Your task to perform on an android device: turn off priority inbox in the gmail app Image 0: 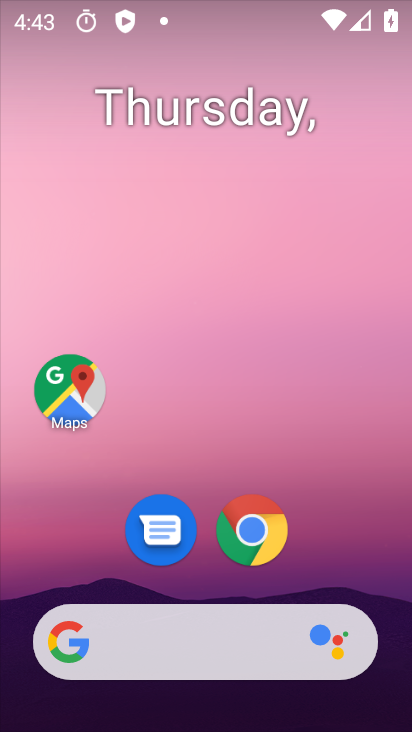
Step 0: drag from (217, 683) to (226, 2)
Your task to perform on an android device: turn off priority inbox in the gmail app Image 1: 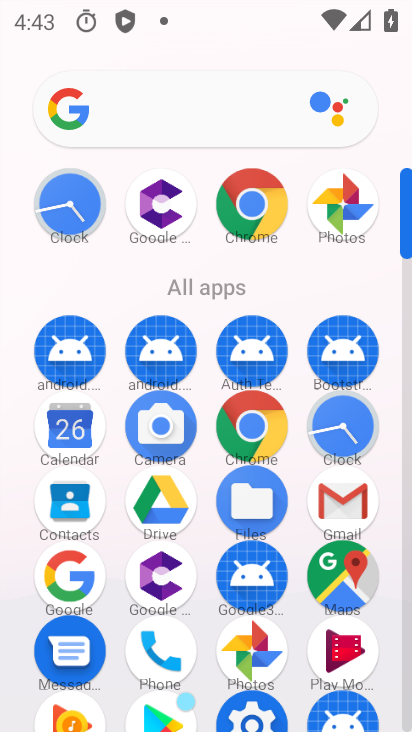
Step 1: click (357, 491)
Your task to perform on an android device: turn off priority inbox in the gmail app Image 2: 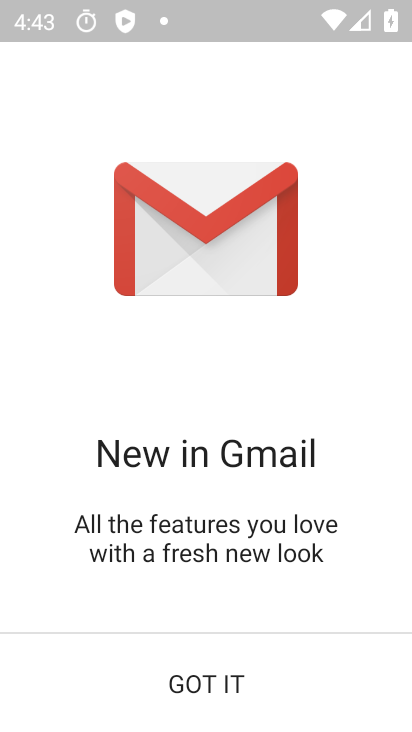
Step 2: click (260, 677)
Your task to perform on an android device: turn off priority inbox in the gmail app Image 3: 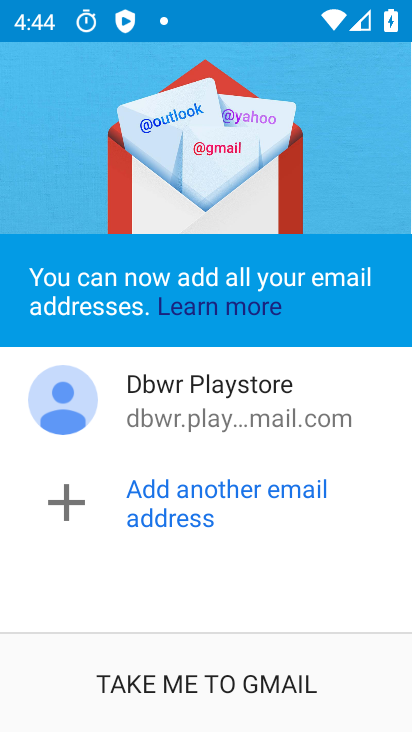
Step 3: click (218, 684)
Your task to perform on an android device: turn off priority inbox in the gmail app Image 4: 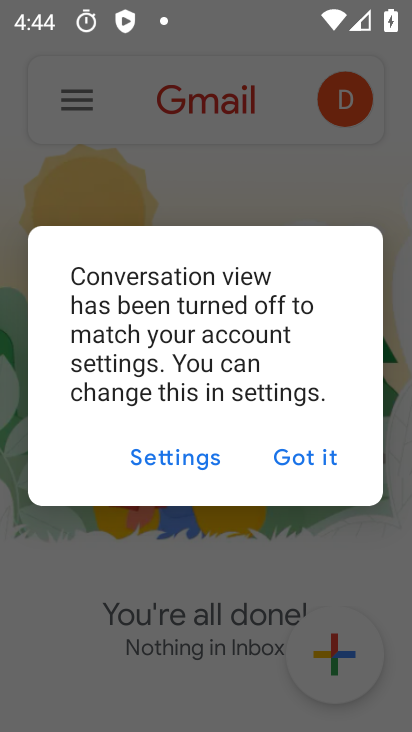
Step 4: click (315, 463)
Your task to perform on an android device: turn off priority inbox in the gmail app Image 5: 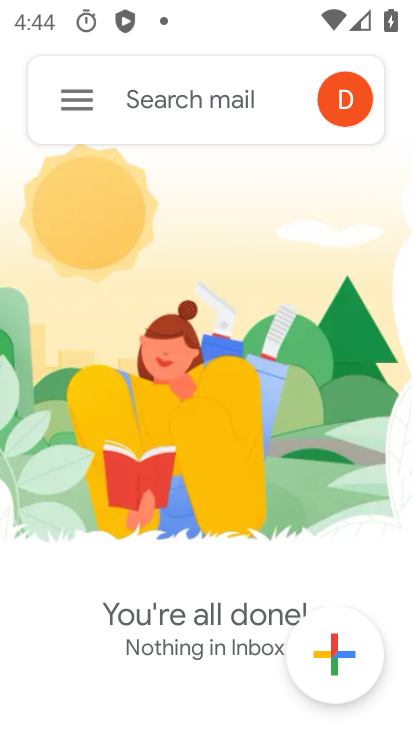
Step 5: click (67, 90)
Your task to perform on an android device: turn off priority inbox in the gmail app Image 6: 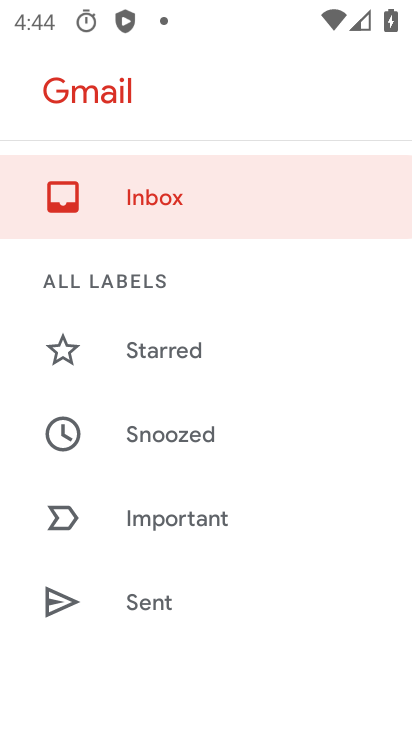
Step 6: drag from (221, 626) to (260, 153)
Your task to perform on an android device: turn off priority inbox in the gmail app Image 7: 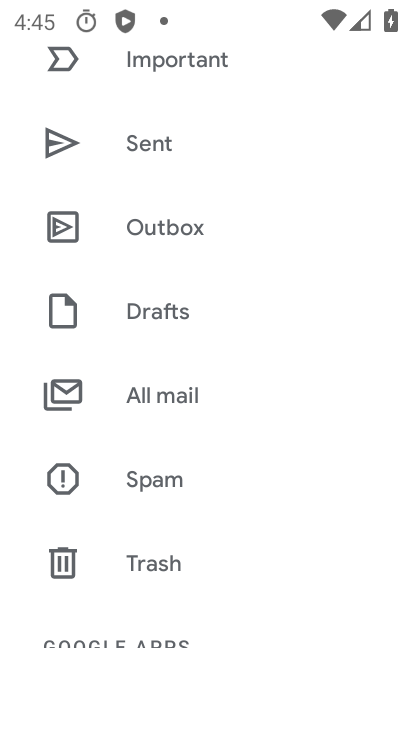
Step 7: drag from (209, 202) to (272, 3)
Your task to perform on an android device: turn off priority inbox in the gmail app Image 8: 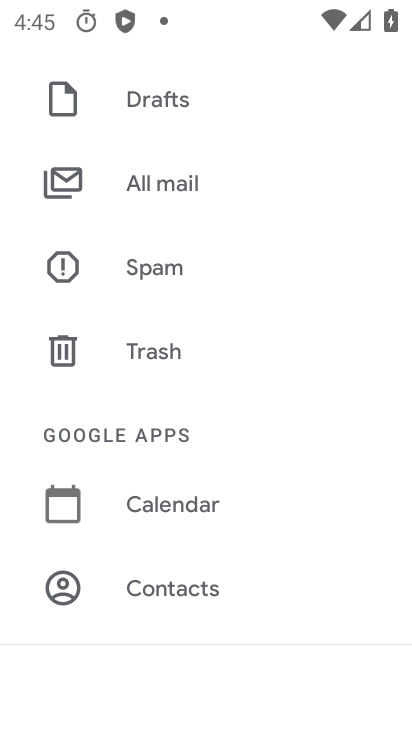
Step 8: drag from (167, 612) to (248, 159)
Your task to perform on an android device: turn off priority inbox in the gmail app Image 9: 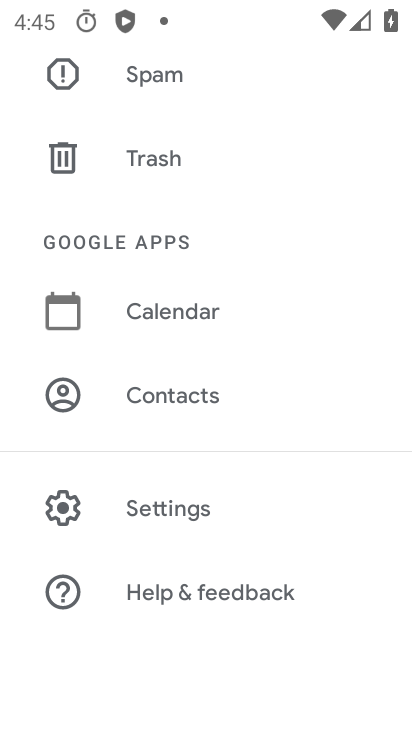
Step 9: click (180, 512)
Your task to perform on an android device: turn off priority inbox in the gmail app Image 10: 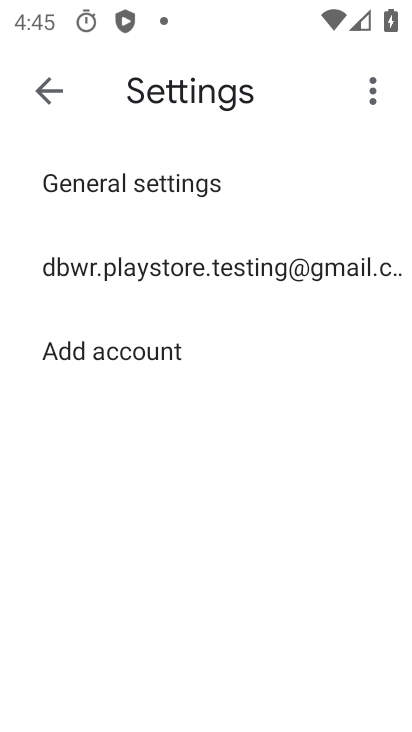
Step 10: click (260, 277)
Your task to perform on an android device: turn off priority inbox in the gmail app Image 11: 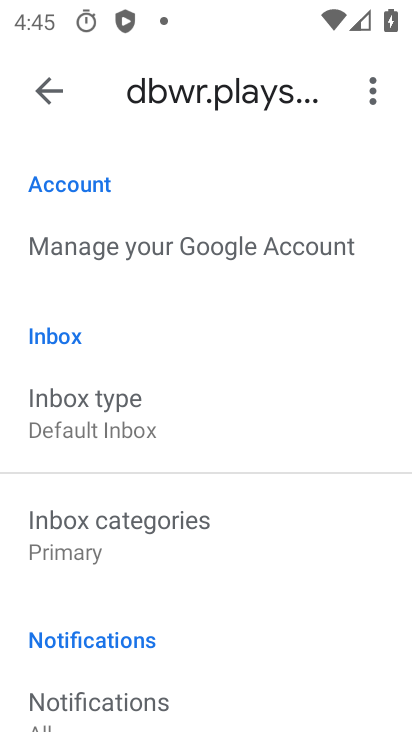
Step 11: click (162, 444)
Your task to perform on an android device: turn off priority inbox in the gmail app Image 12: 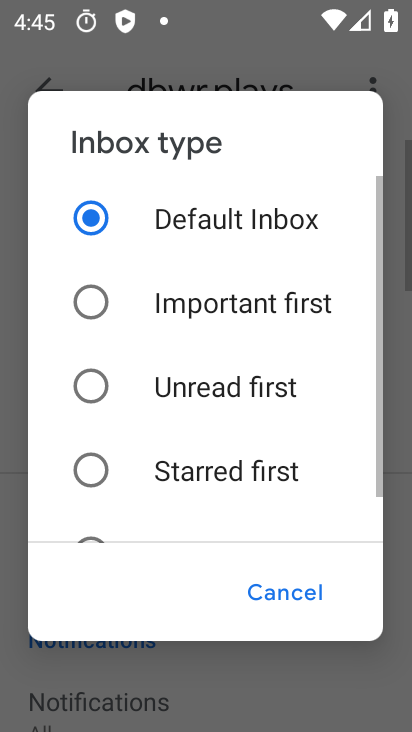
Step 12: task complete